Your task to perform on an android device: Open display settings Image 0: 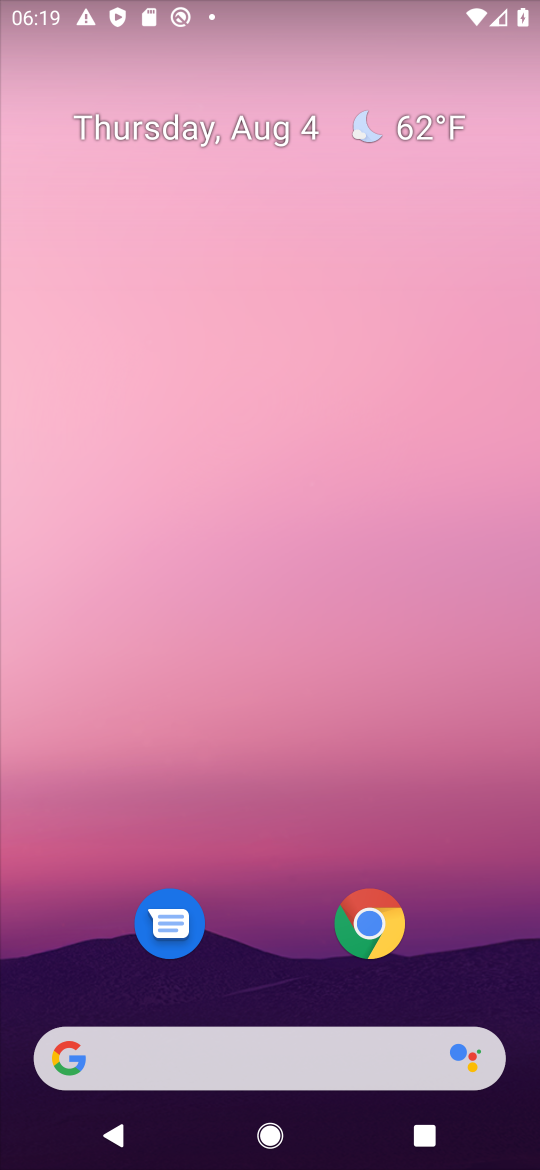
Step 0: drag from (508, 948) to (441, 344)
Your task to perform on an android device: Open display settings Image 1: 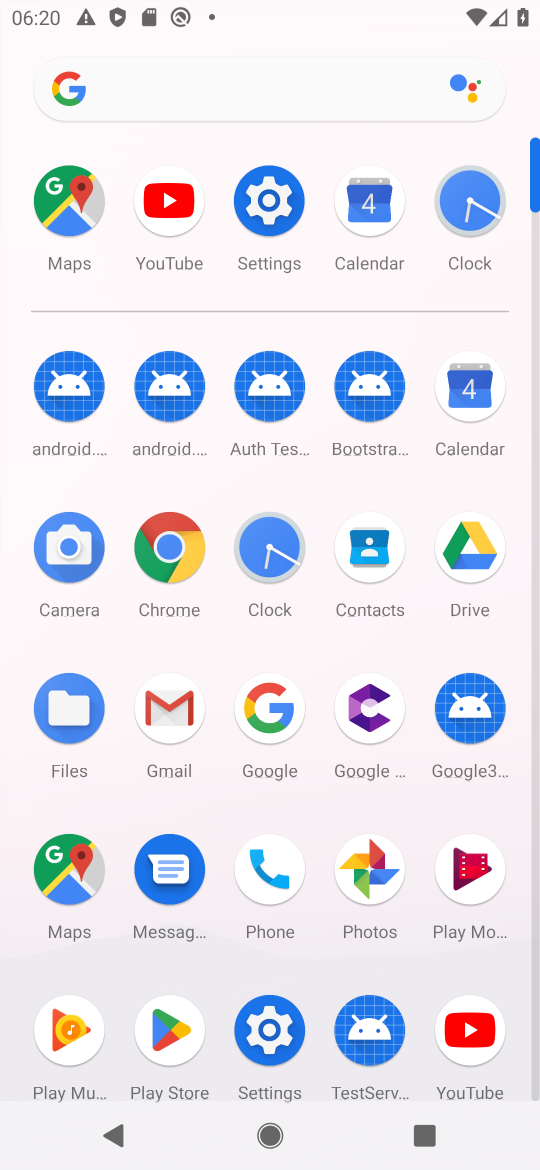
Step 1: click (262, 1019)
Your task to perform on an android device: Open display settings Image 2: 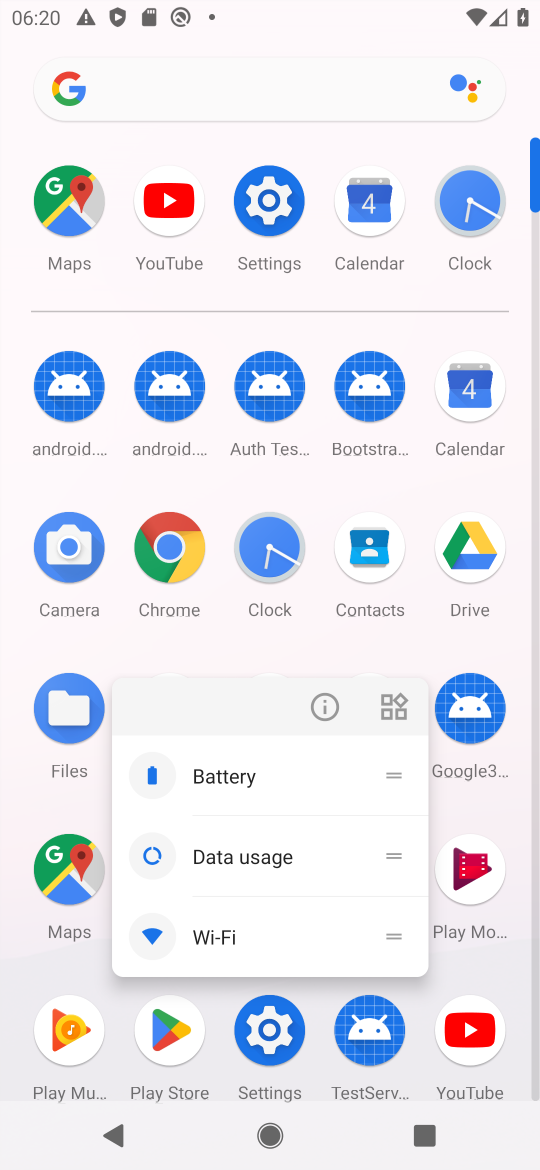
Step 2: click (270, 1032)
Your task to perform on an android device: Open display settings Image 3: 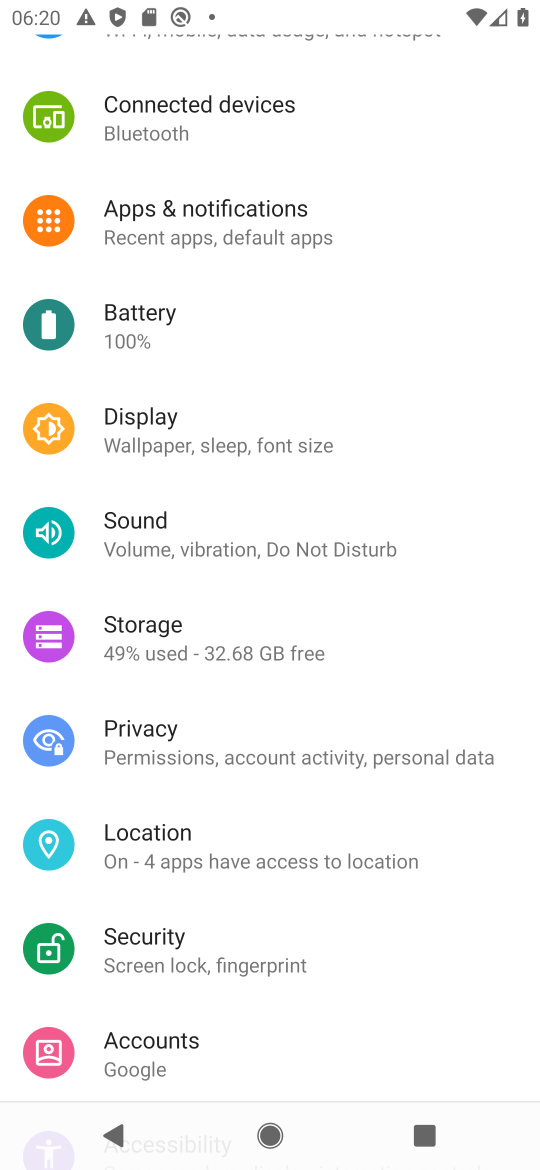
Step 3: click (198, 449)
Your task to perform on an android device: Open display settings Image 4: 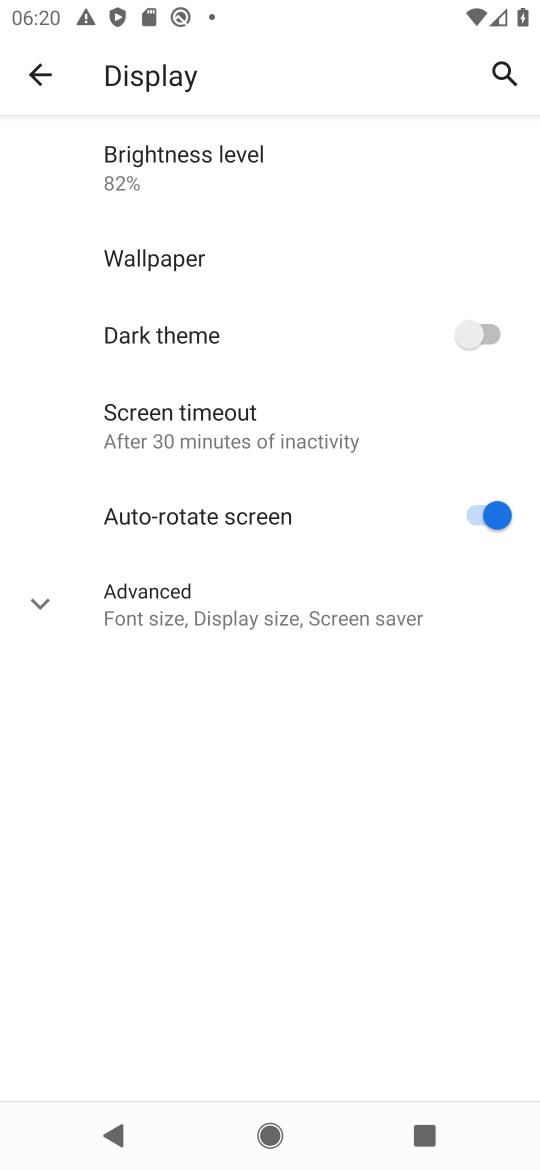
Step 4: task complete